Your task to perform on an android device: Open Android settings Image 0: 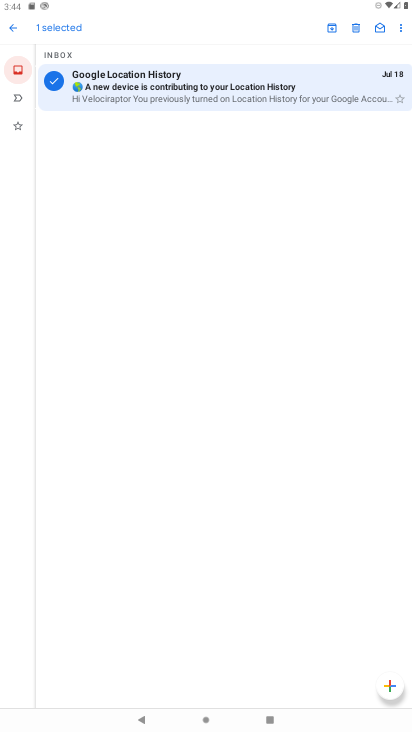
Step 0: press home button
Your task to perform on an android device: Open Android settings Image 1: 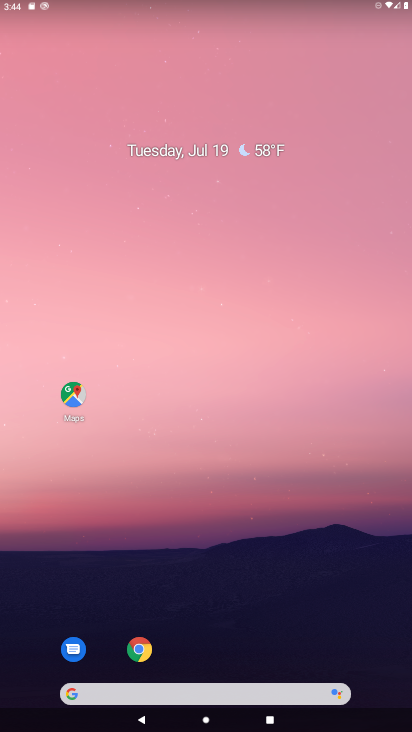
Step 1: drag from (234, 699) to (219, 321)
Your task to perform on an android device: Open Android settings Image 2: 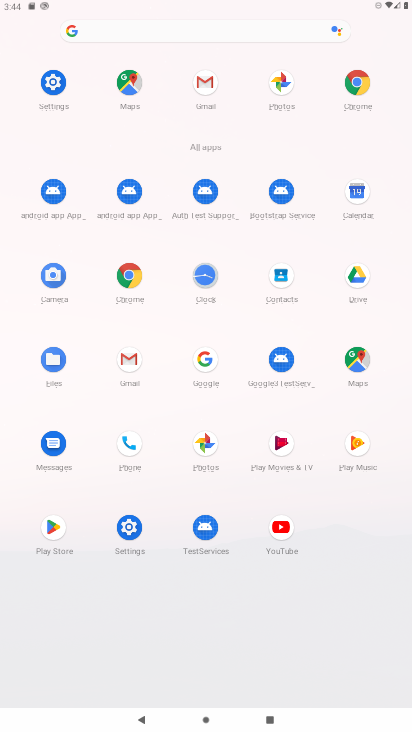
Step 2: click (43, 75)
Your task to perform on an android device: Open Android settings Image 3: 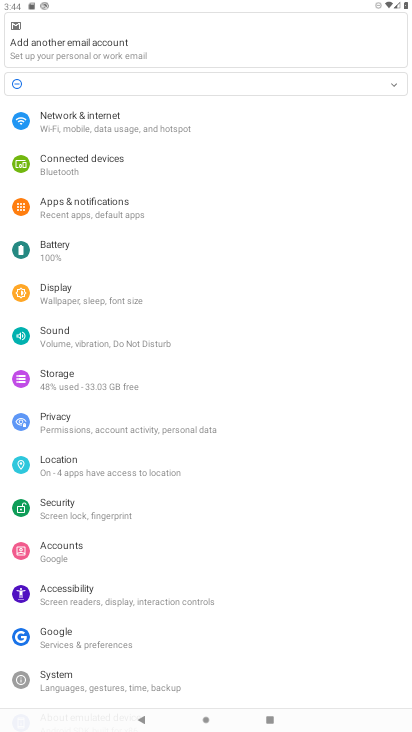
Step 3: task complete